Your task to perform on an android device: Open the phone app and click the voicemail tab. Image 0: 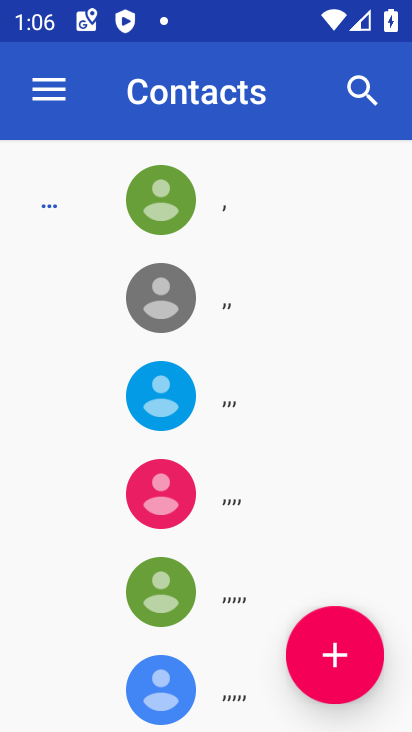
Step 0: press home button
Your task to perform on an android device: Open the phone app and click the voicemail tab. Image 1: 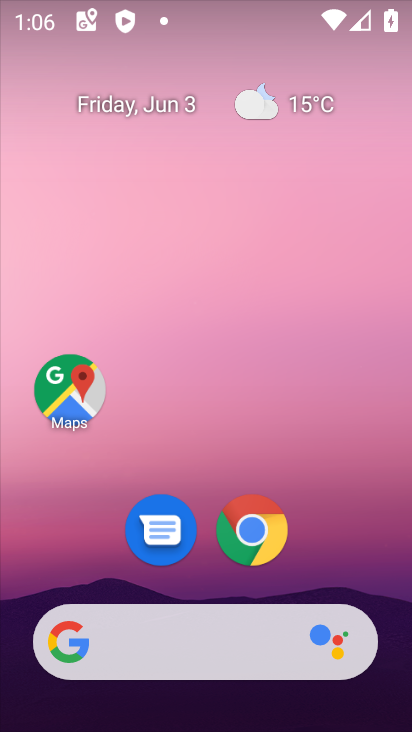
Step 1: drag from (353, 541) to (319, 42)
Your task to perform on an android device: Open the phone app and click the voicemail tab. Image 2: 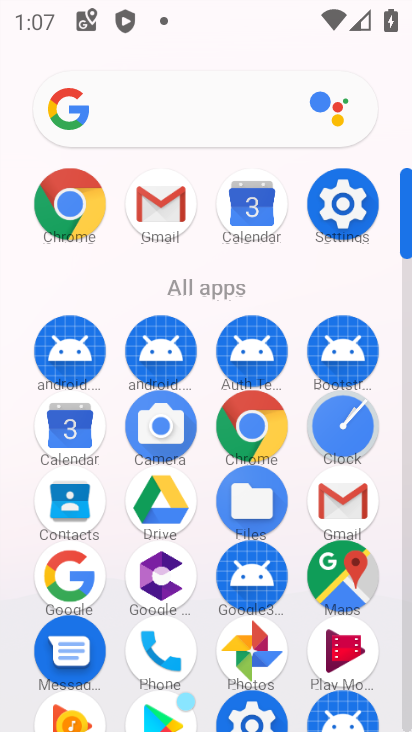
Step 2: click (160, 665)
Your task to perform on an android device: Open the phone app and click the voicemail tab. Image 3: 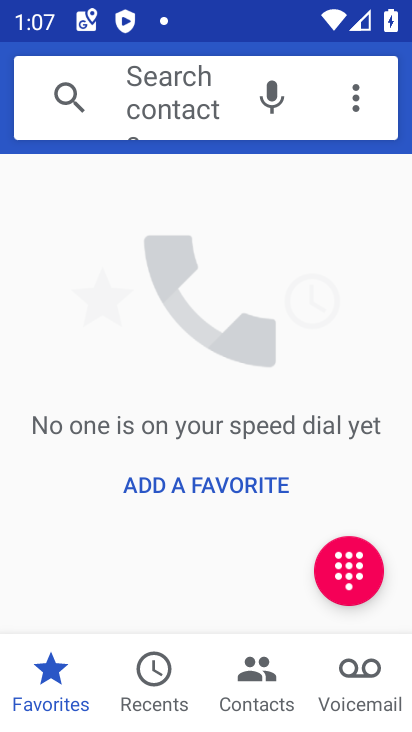
Step 3: click (371, 671)
Your task to perform on an android device: Open the phone app and click the voicemail tab. Image 4: 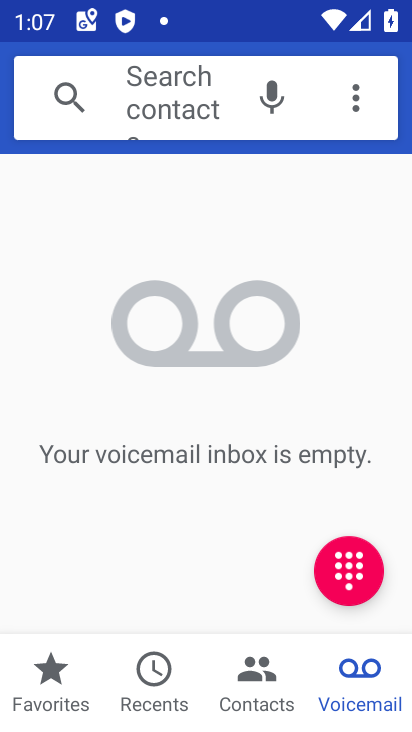
Step 4: task complete